Your task to perform on an android device: check android version Image 0: 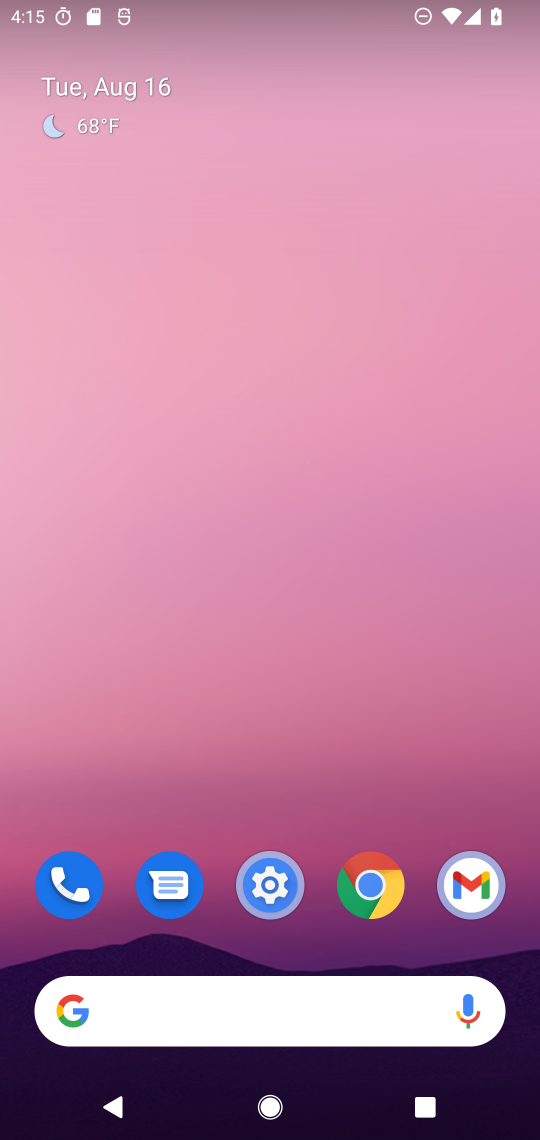
Step 0: drag from (316, 1004) to (307, 613)
Your task to perform on an android device: check android version Image 1: 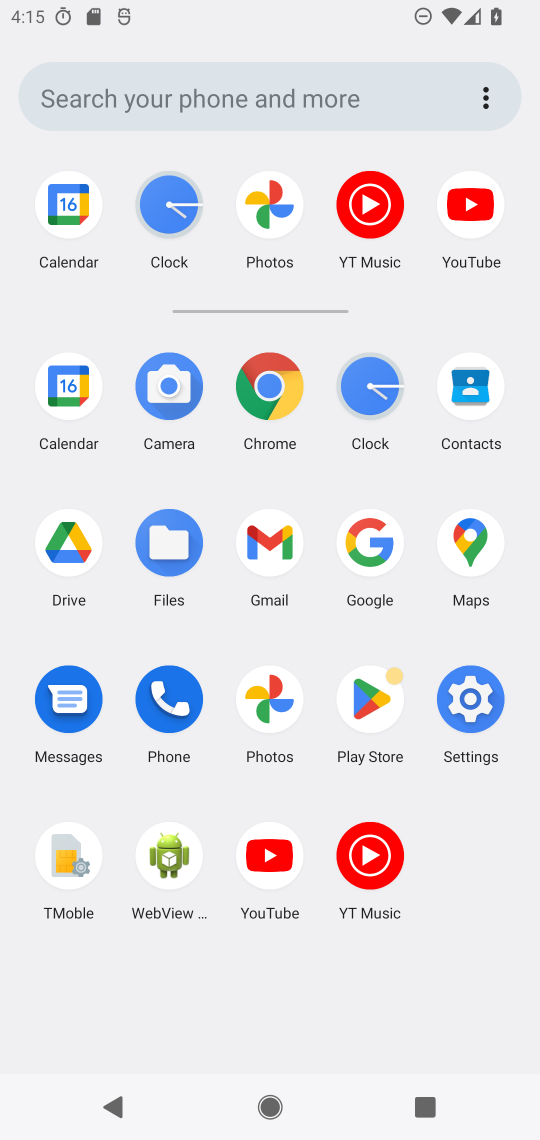
Step 1: click (465, 692)
Your task to perform on an android device: check android version Image 2: 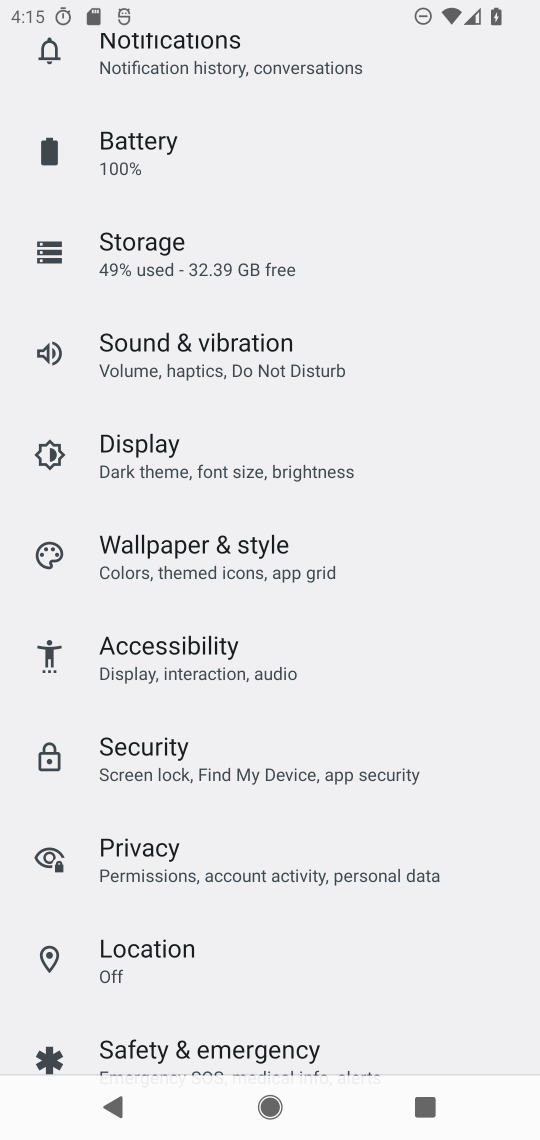
Step 2: drag from (209, 992) to (324, 77)
Your task to perform on an android device: check android version Image 3: 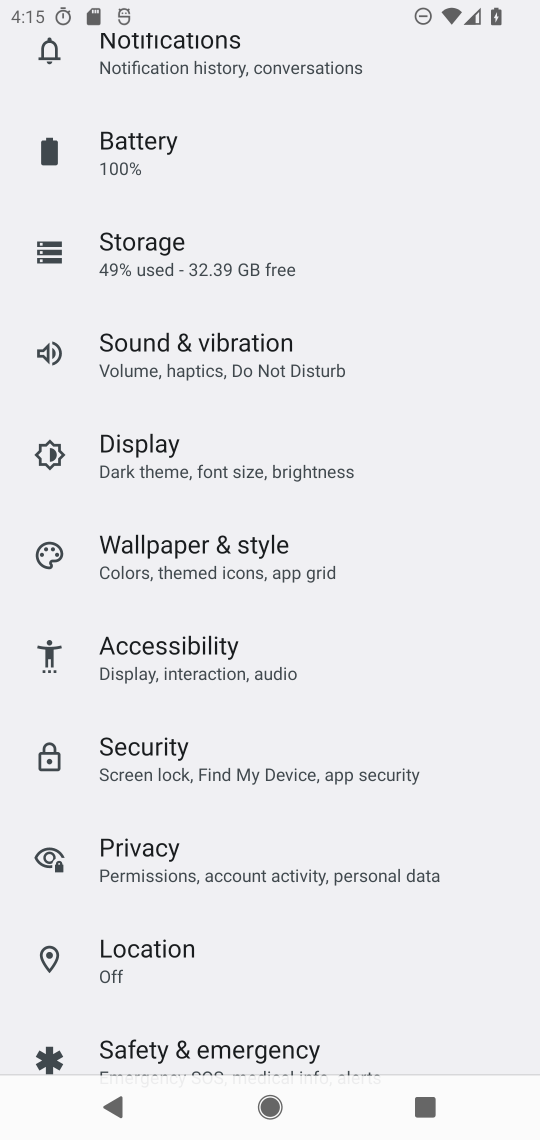
Step 3: drag from (277, 905) to (298, 109)
Your task to perform on an android device: check android version Image 4: 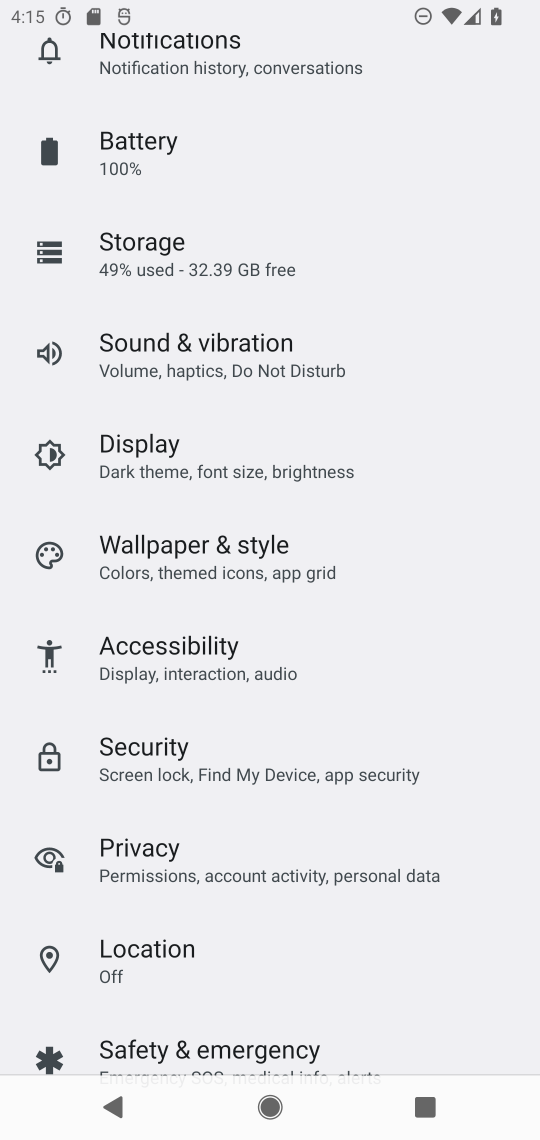
Step 4: drag from (322, 835) to (312, 89)
Your task to perform on an android device: check android version Image 5: 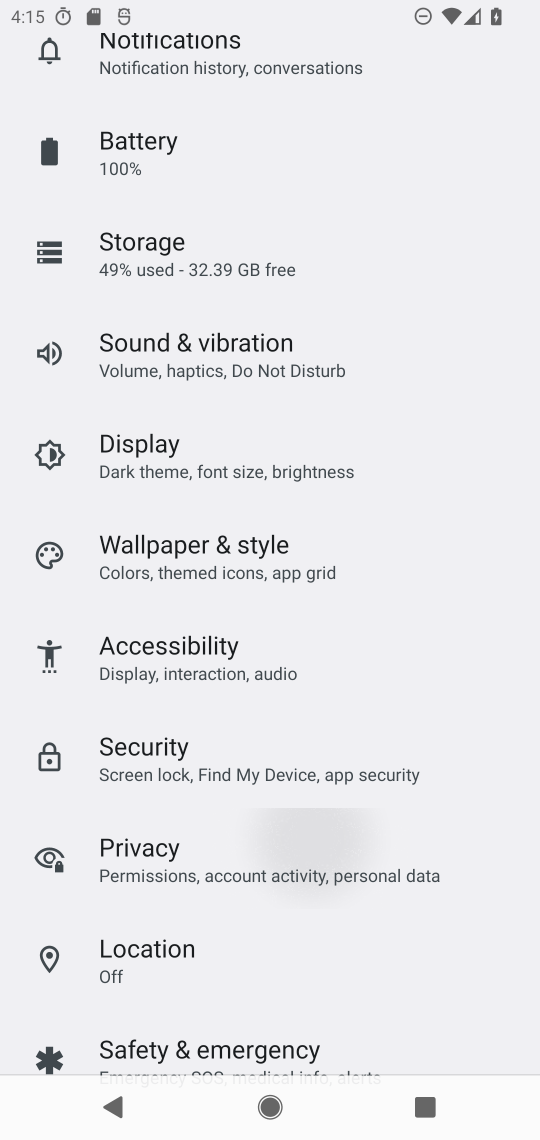
Step 5: drag from (298, 721) to (297, 109)
Your task to perform on an android device: check android version Image 6: 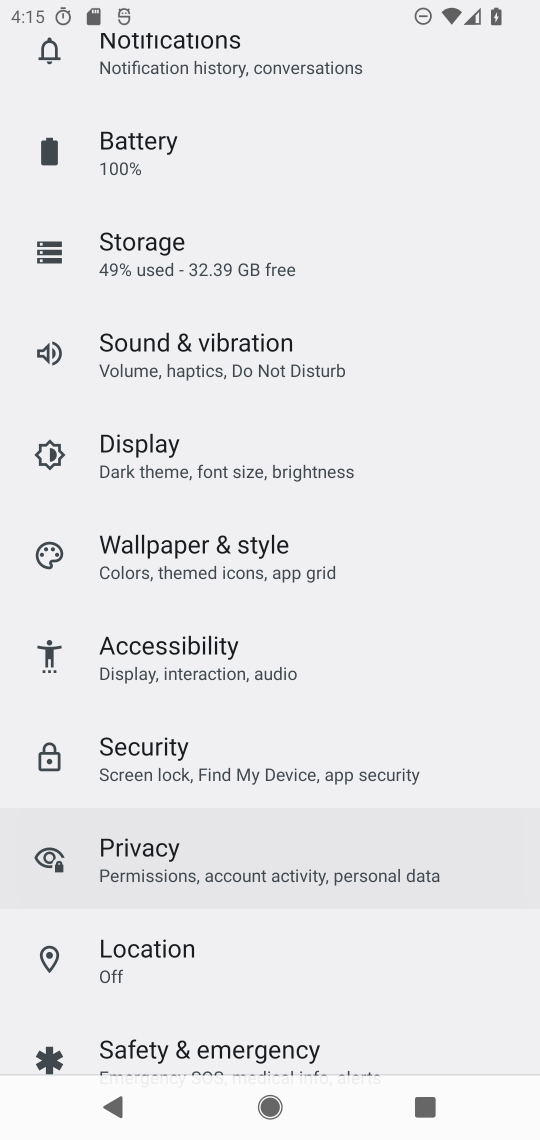
Step 6: drag from (277, 251) to (330, 2)
Your task to perform on an android device: check android version Image 7: 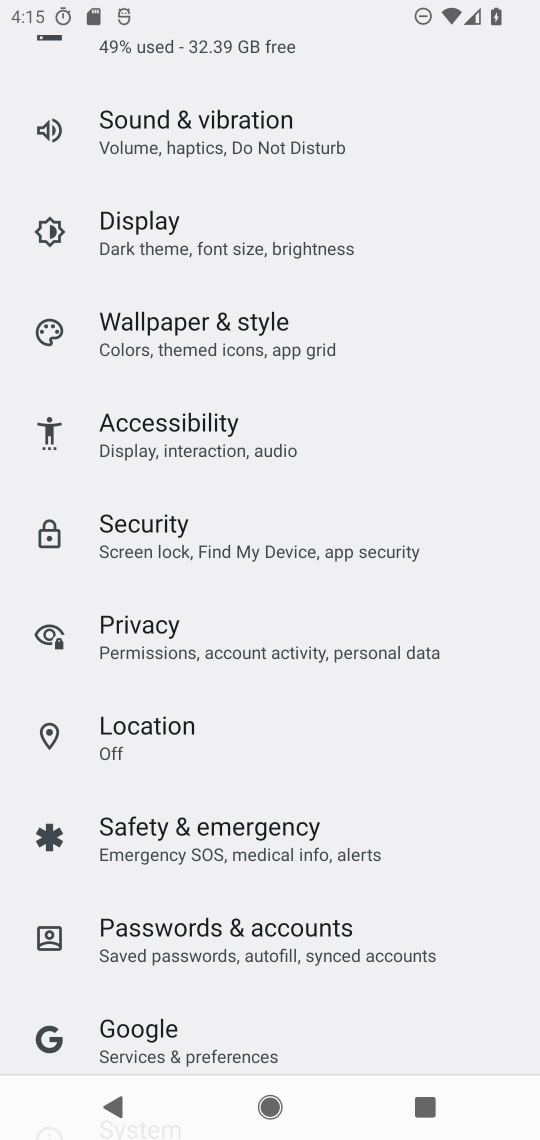
Step 7: drag from (256, 961) to (255, 390)
Your task to perform on an android device: check android version Image 8: 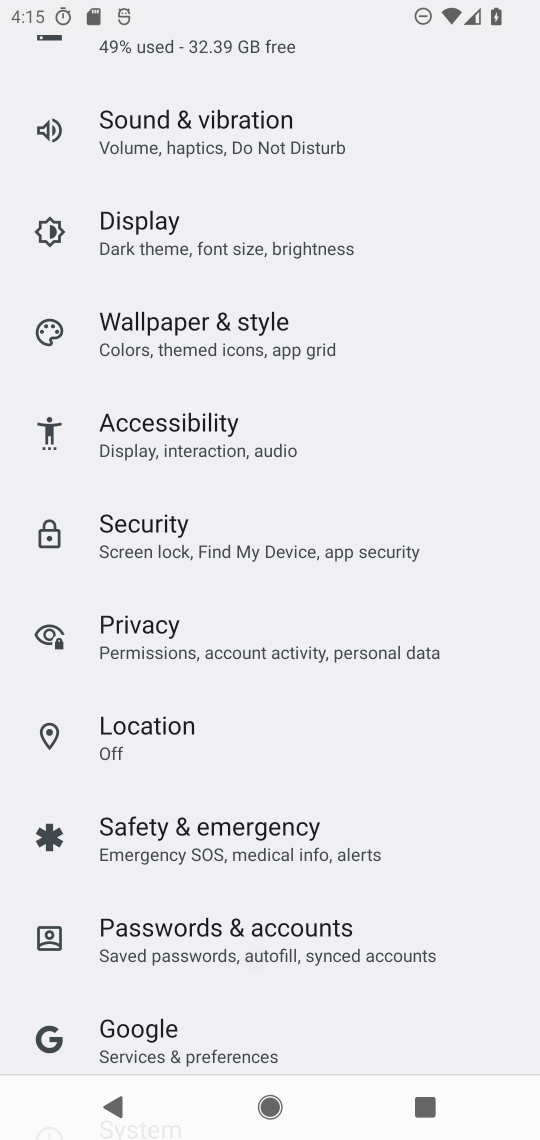
Step 8: drag from (238, 952) to (249, 621)
Your task to perform on an android device: check android version Image 9: 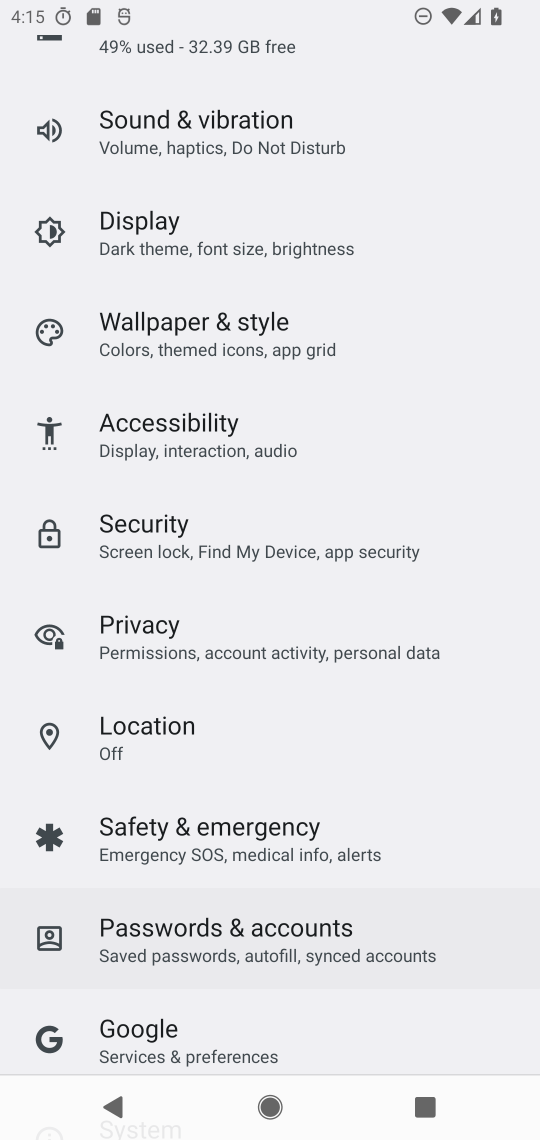
Step 9: drag from (241, 914) to (235, 694)
Your task to perform on an android device: check android version Image 10: 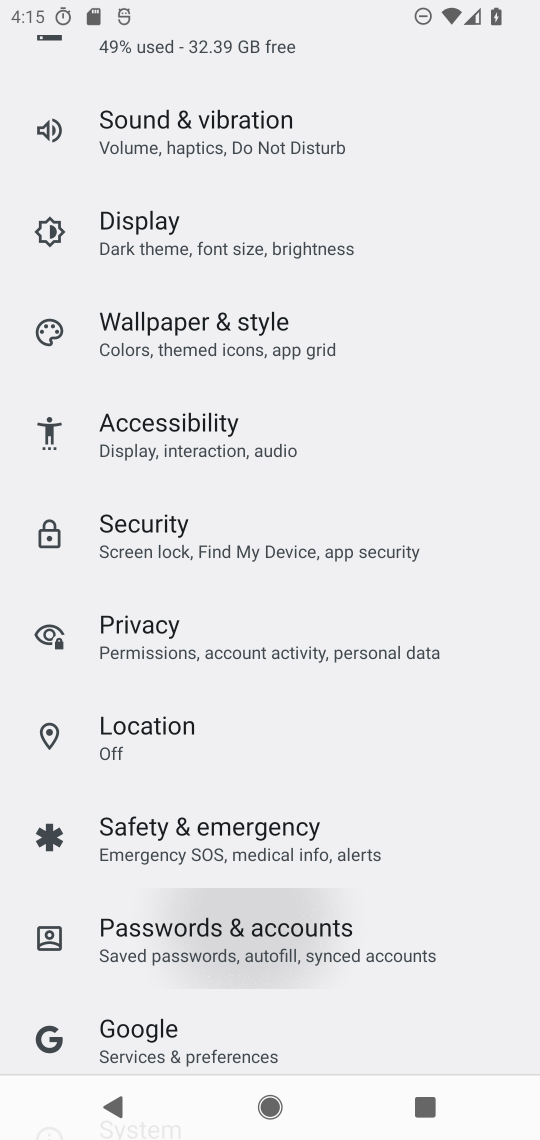
Step 10: drag from (212, 718) to (212, 623)
Your task to perform on an android device: check android version Image 11: 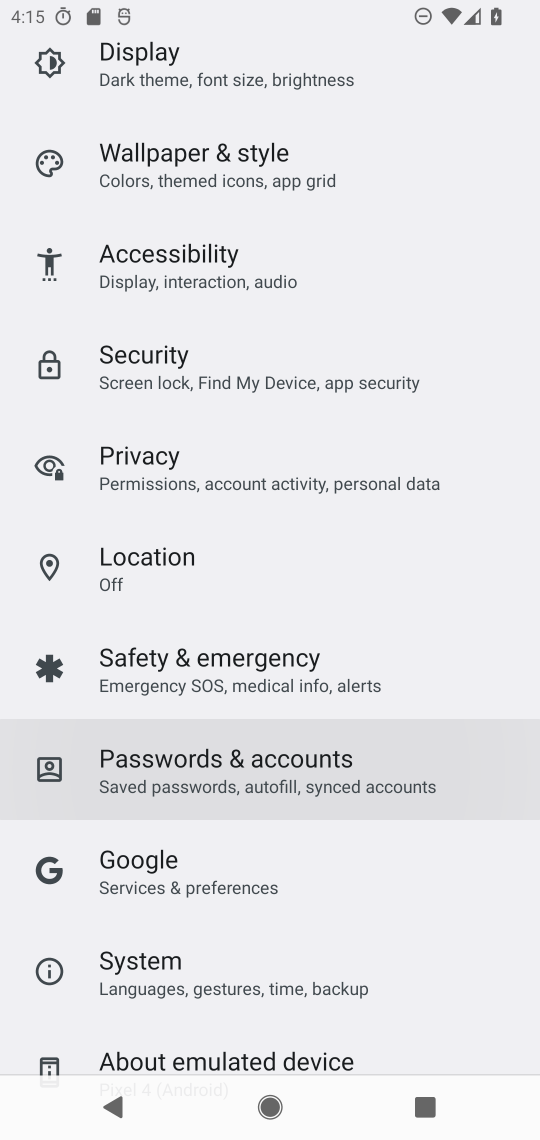
Step 11: drag from (257, 514) to (254, 304)
Your task to perform on an android device: check android version Image 12: 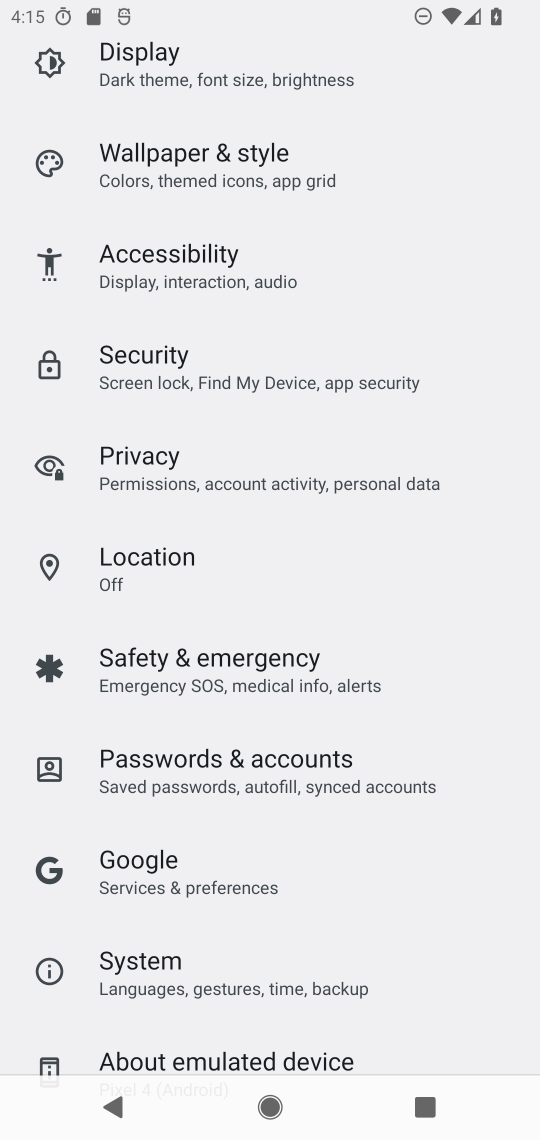
Step 12: click (309, 1047)
Your task to perform on an android device: check android version Image 13: 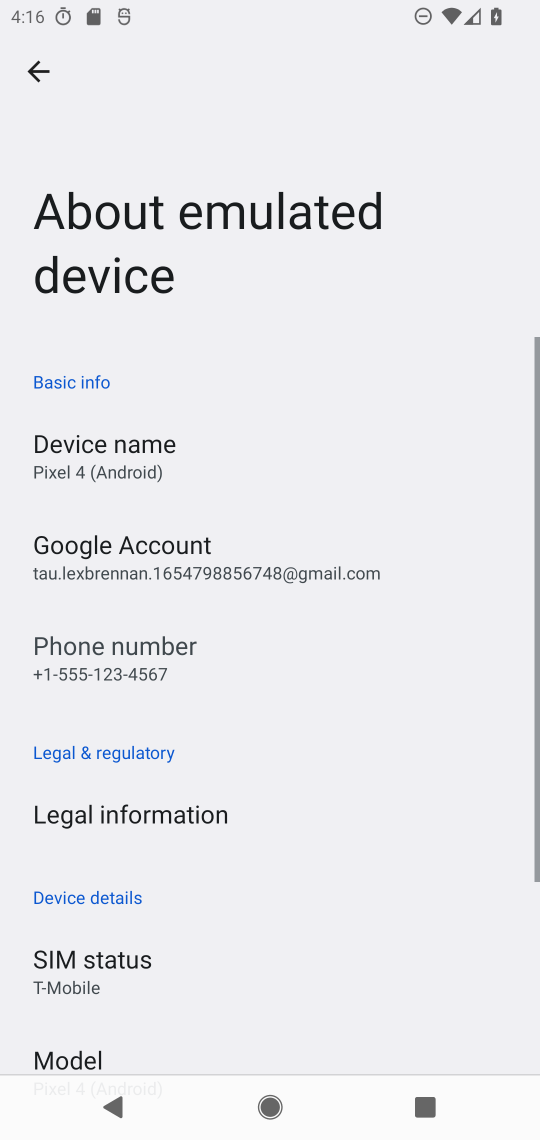
Step 13: drag from (232, 1046) to (196, 237)
Your task to perform on an android device: check android version Image 14: 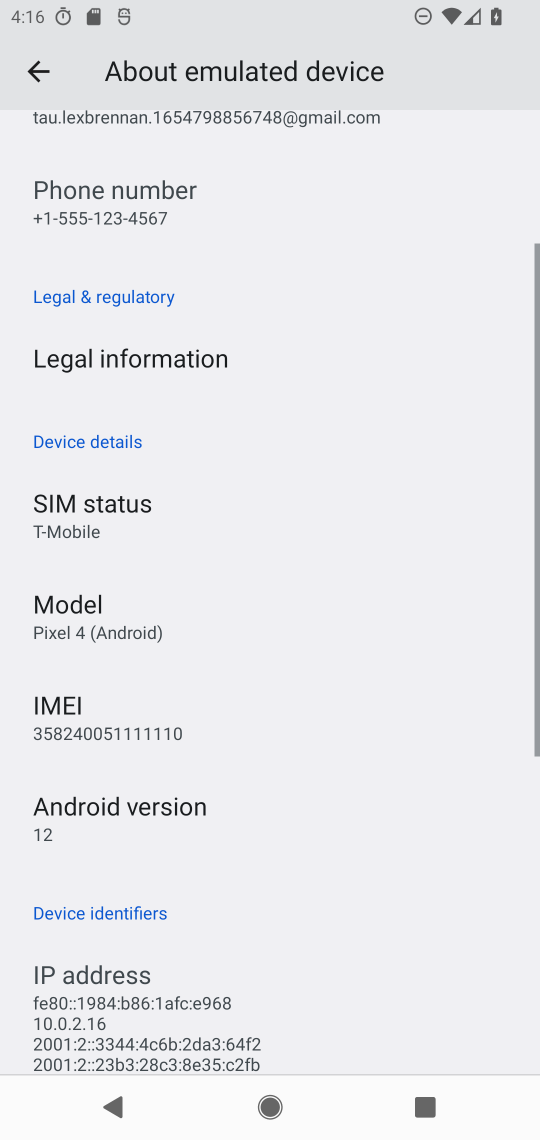
Step 14: click (165, 817)
Your task to perform on an android device: check android version Image 15: 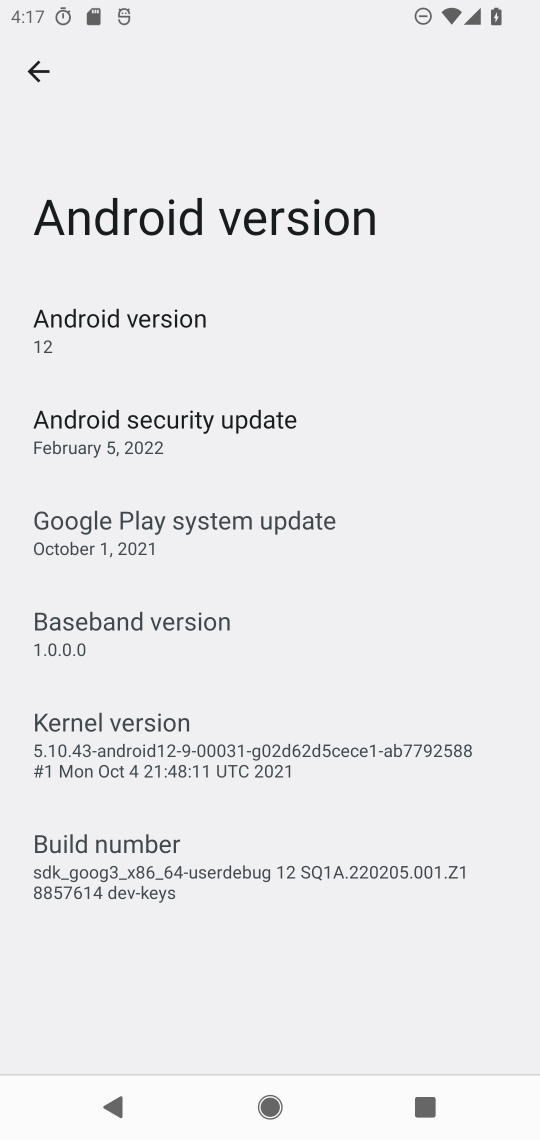
Step 15: task complete